Your task to perform on an android device: toggle sleep mode Image 0: 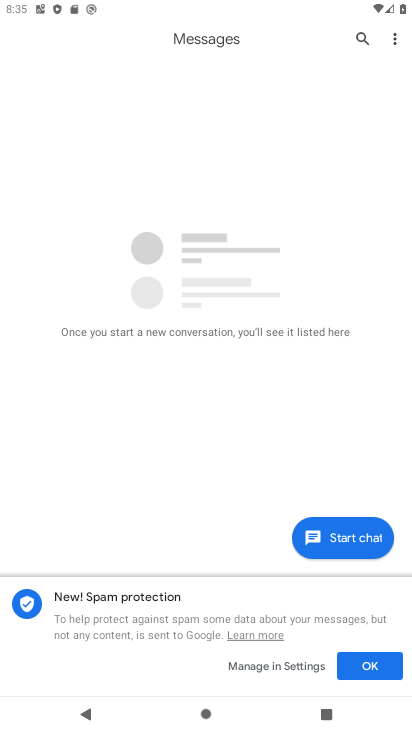
Step 0: drag from (193, 12) to (138, 603)
Your task to perform on an android device: toggle sleep mode Image 1: 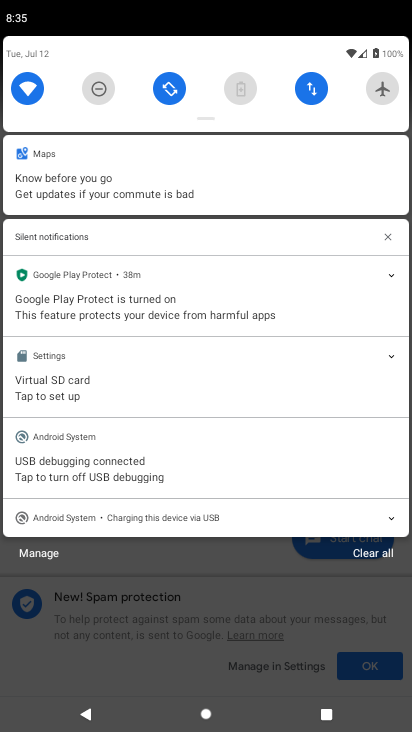
Step 1: drag from (215, 75) to (210, 577)
Your task to perform on an android device: toggle sleep mode Image 2: 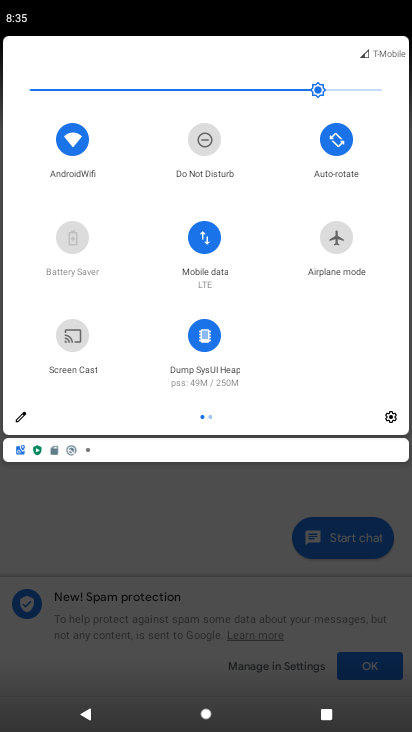
Step 2: click (393, 423)
Your task to perform on an android device: toggle sleep mode Image 3: 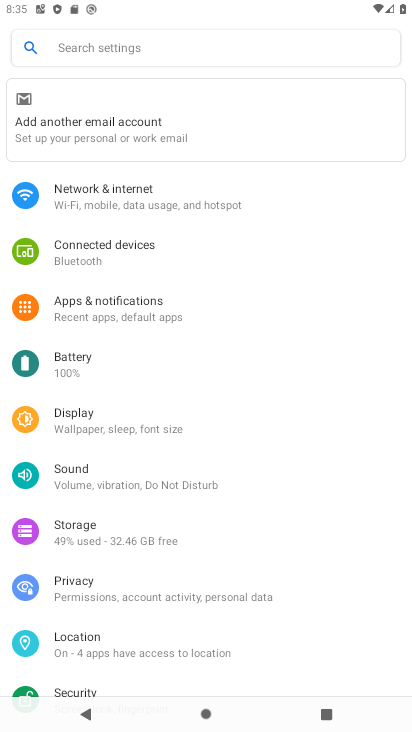
Step 3: task complete